Your task to perform on an android device: Go to calendar. Show me events next week Image 0: 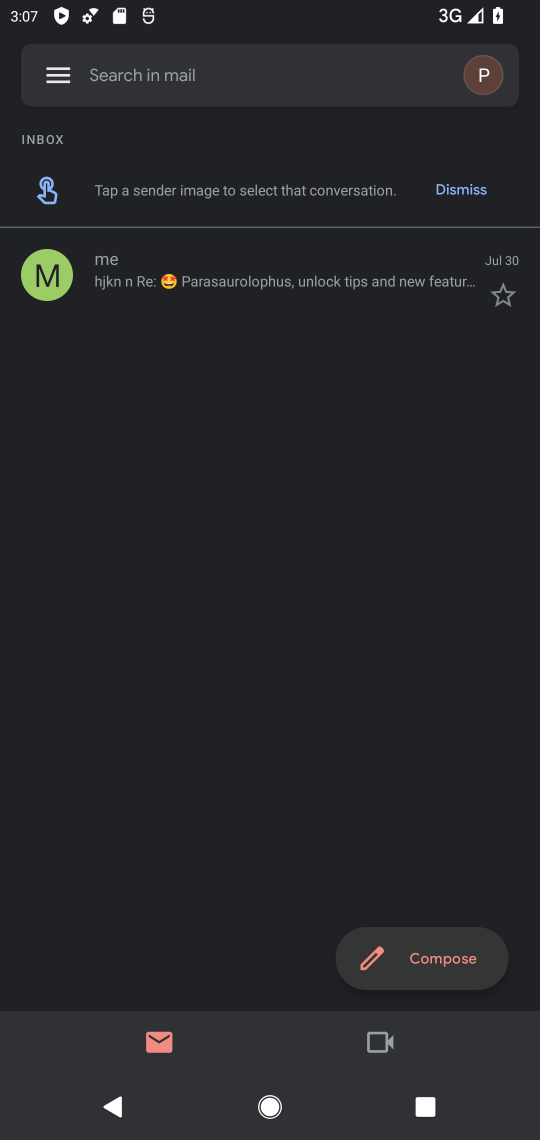
Step 0: press home button
Your task to perform on an android device: Go to calendar. Show me events next week Image 1: 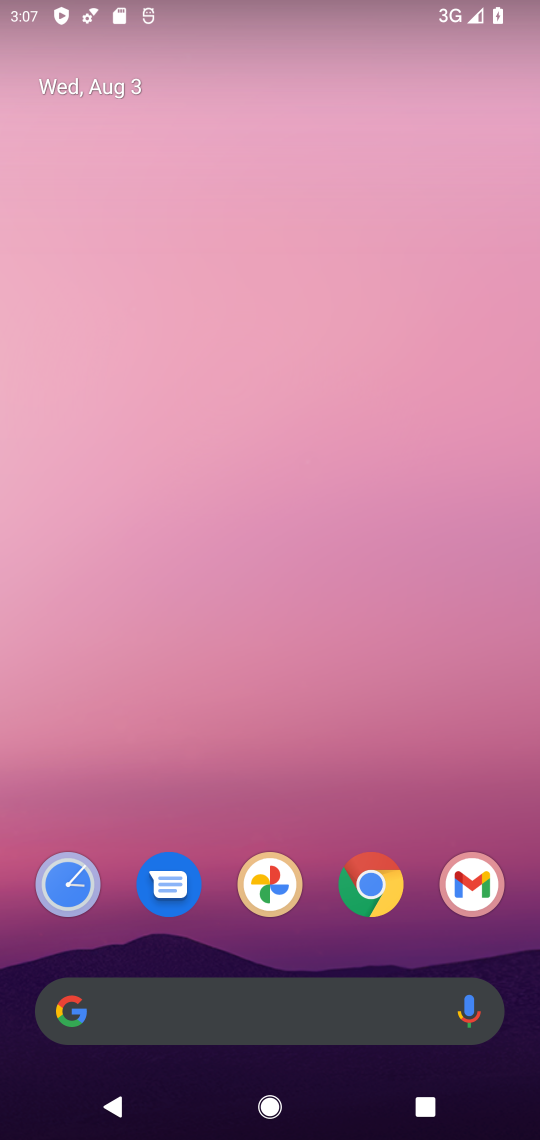
Step 1: drag from (309, 951) to (261, 173)
Your task to perform on an android device: Go to calendar. Show me events next week Image 2: 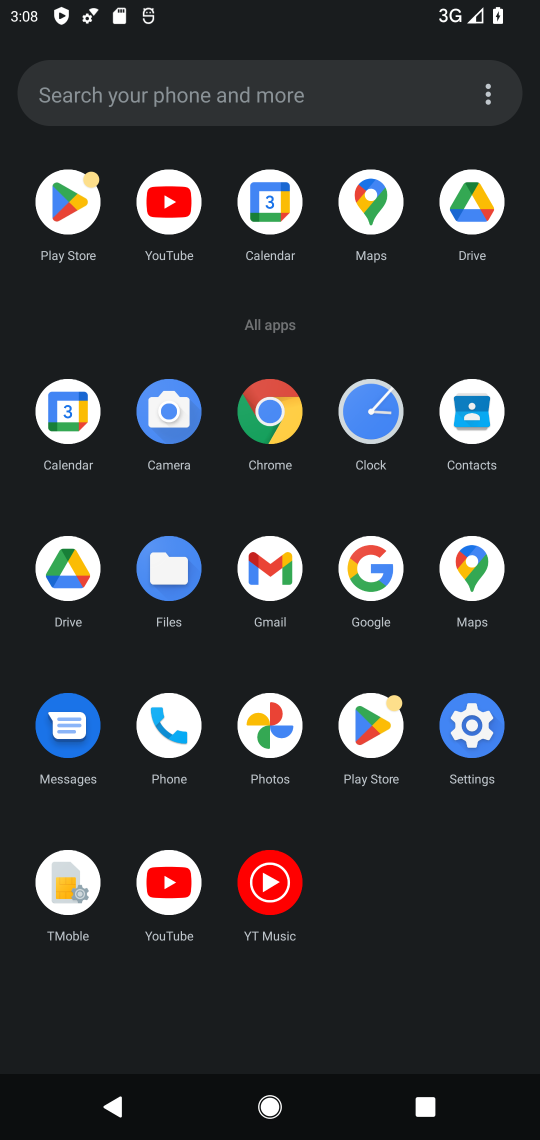
Step 2: click (73, 474)
Your task to perform on an android device: Go to calendar. Show me events next week Image 3: 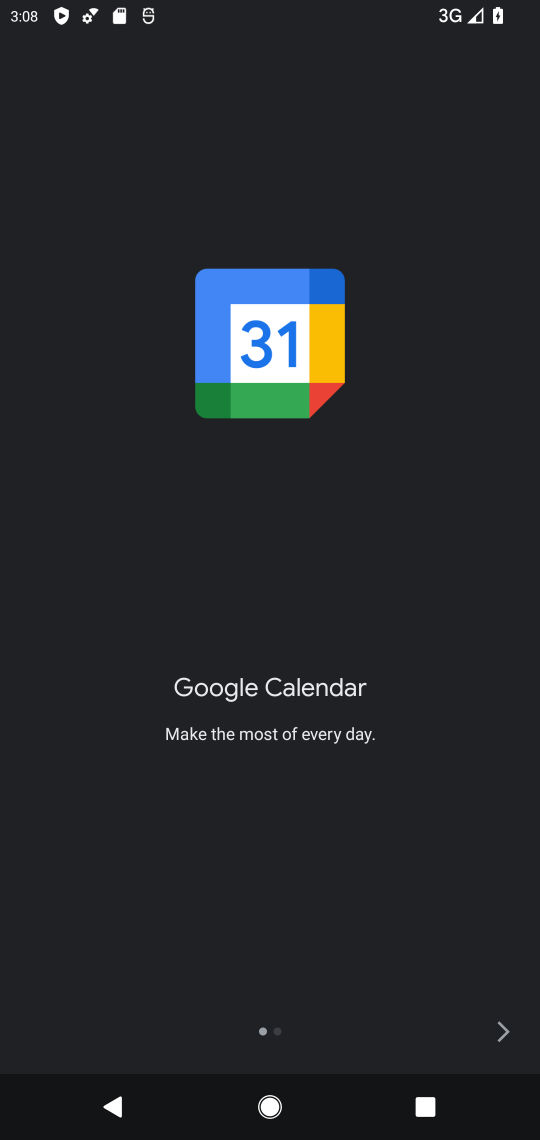
Step 3: click (510, 1023)
Your task to perform on an android device: Go to calendar. Show me events next week Image 4: 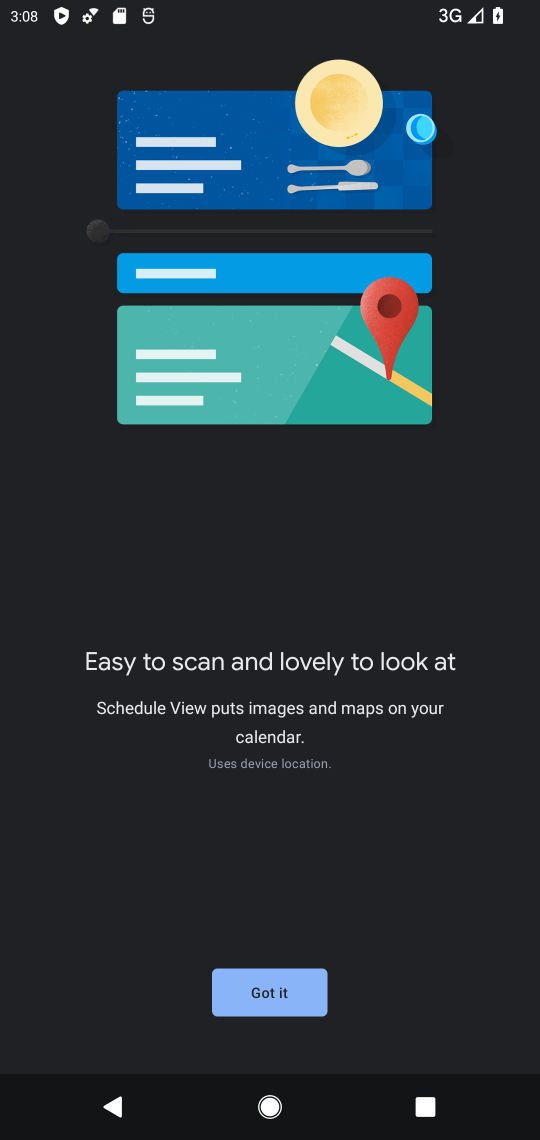
Step 4: click (303, 996)
Your task to perform on an android device: Go to calendar. Show me events next week Image 5: 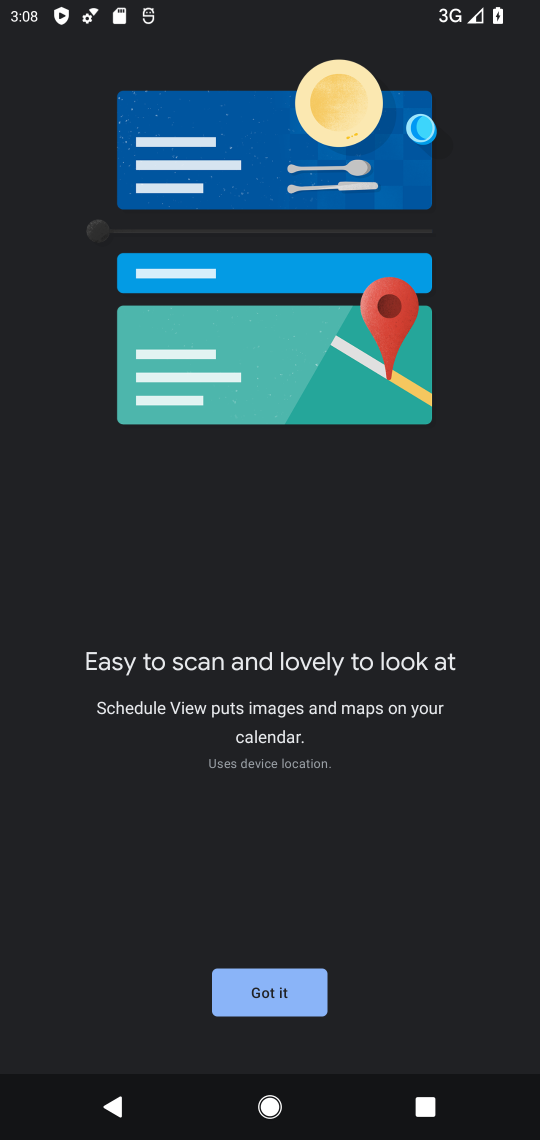
Step 5: click (303, 996)
Your task to perform on an android device: Go to calendar. Show me events next week Image 6: 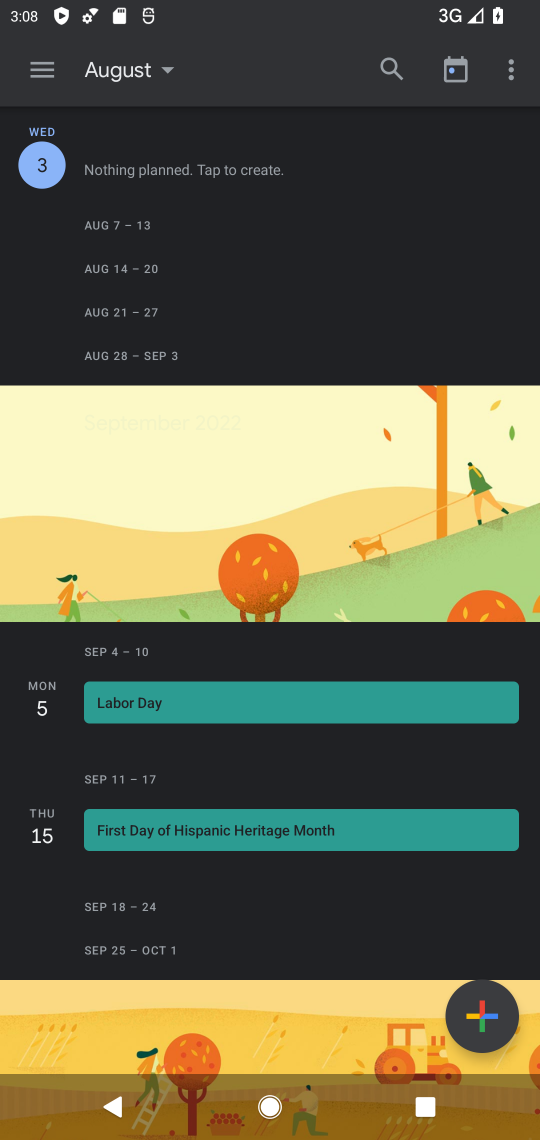
Step 6: task complete